Your task to perform on an android device: read, delete, or share a saved page in the chrome app Image 0: 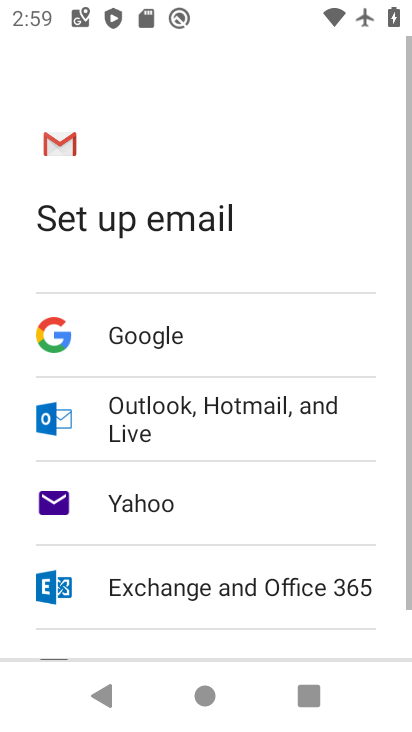
Step 0: press home button
Your task to perform on an android device: read, delete, or share a saved page in the chrome app Image 1: 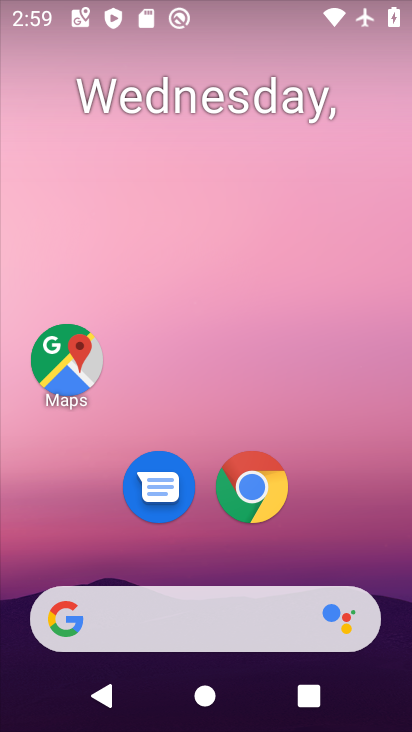
Step 1: click (260, 488)
Your task to perform on an android device: read, delete, or share a saved page in the chrome app Image 2: 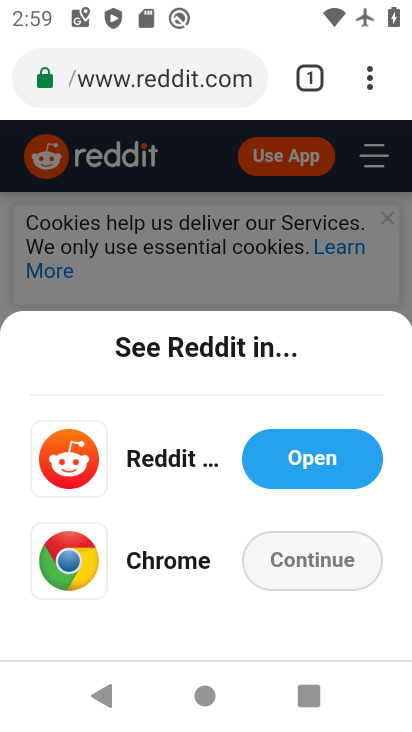
Step 2: task complete